Your task to perform on an android device: Do I have any events this weekend? Image 0: 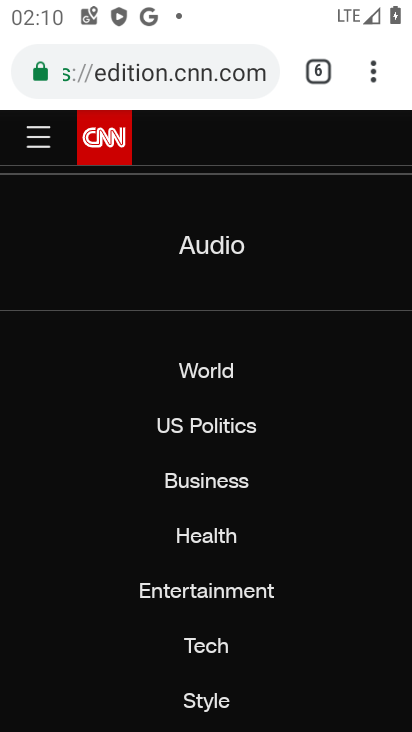
Step 0: press home button
Your task to perform on an android device: Do I have any events this weekend? Image 1: 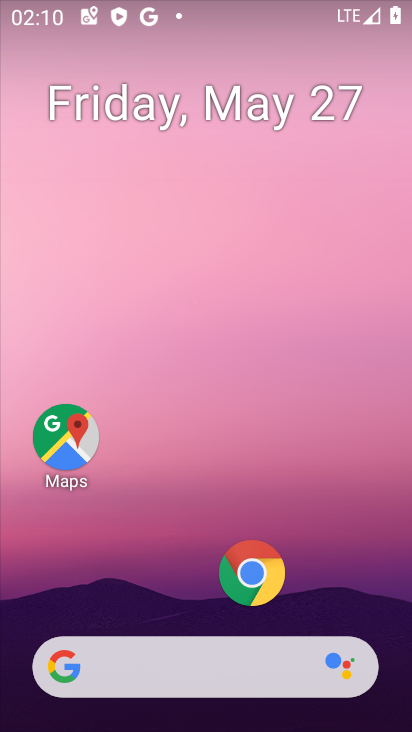
Step 1: drag from (205, 616) to (169, 147)
Your task to perform on an android device: Do I have any events this weekend? Image 2: 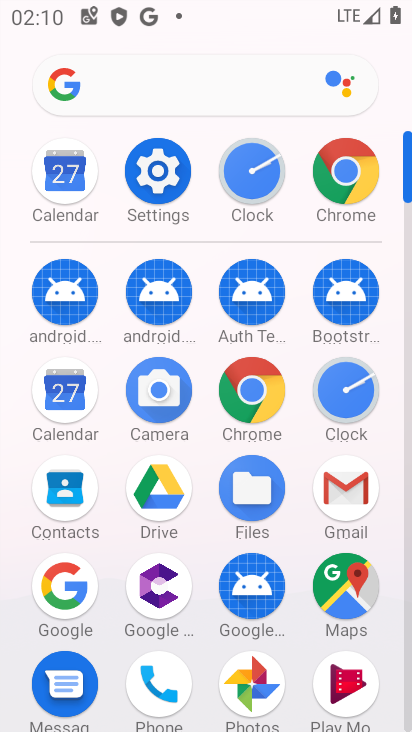
Step 2: click (67, 402)
Your task to perform on an android device: Do I have any events this weekend? Image 3: 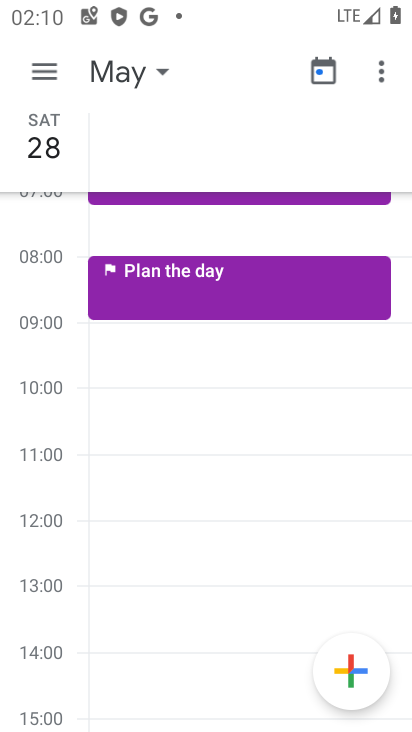
Step 3: click (55, 79)
Your task to perform on an android device: Do I have any events this weekend? Image 4: 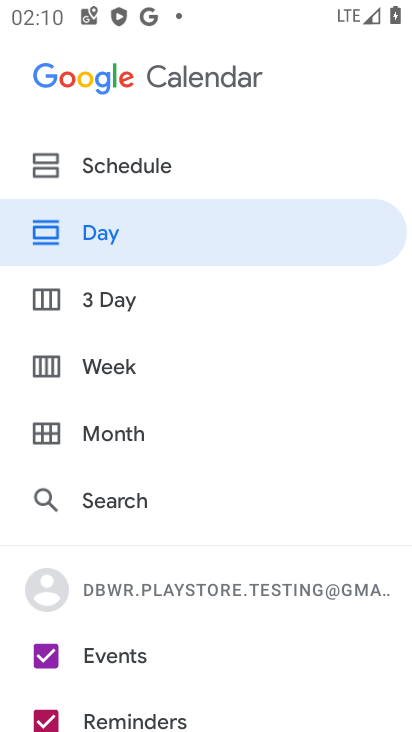
Step 4: click (117, 351)
Your task to perform on an android device: Do I have any events this weekend? Image 5: 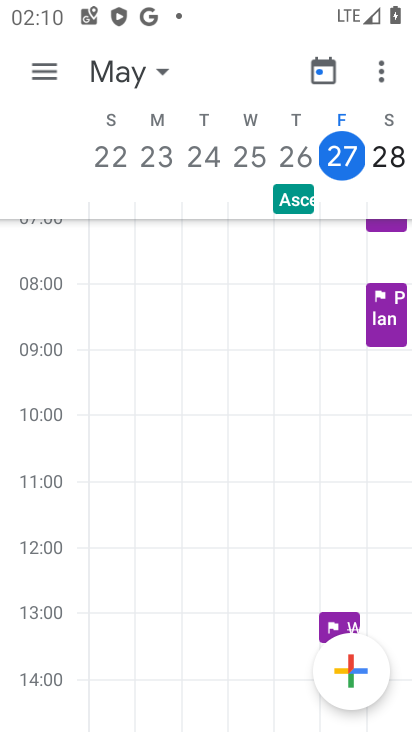
Step 5: task complete